Your task to perform on an android device: open app "Reddit" Image 0: 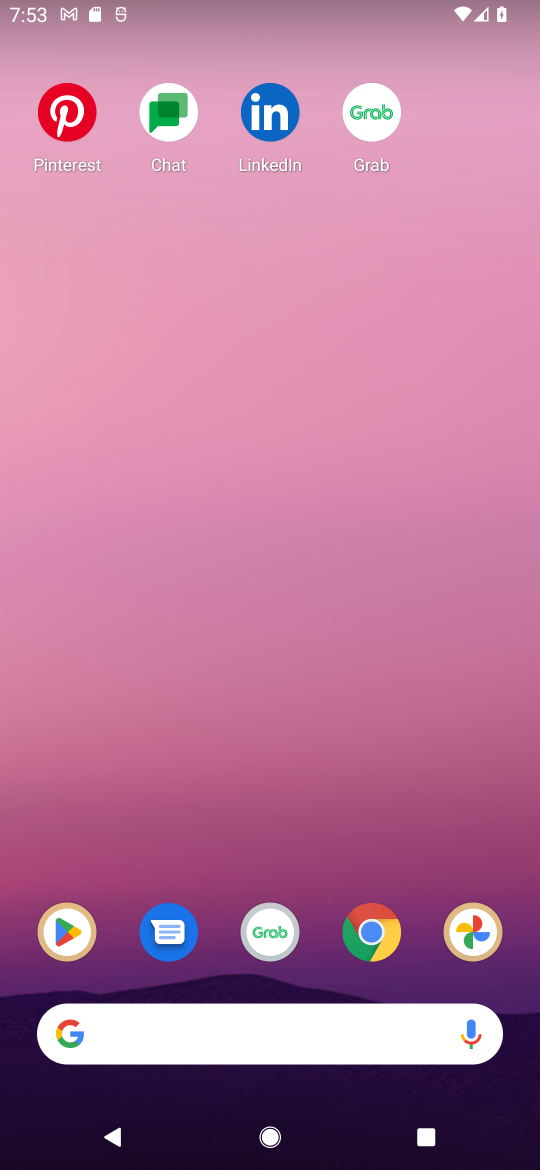
Step 0: click (52, 932)
Your task to perform on an android device: open app "Reddit" Image 1: 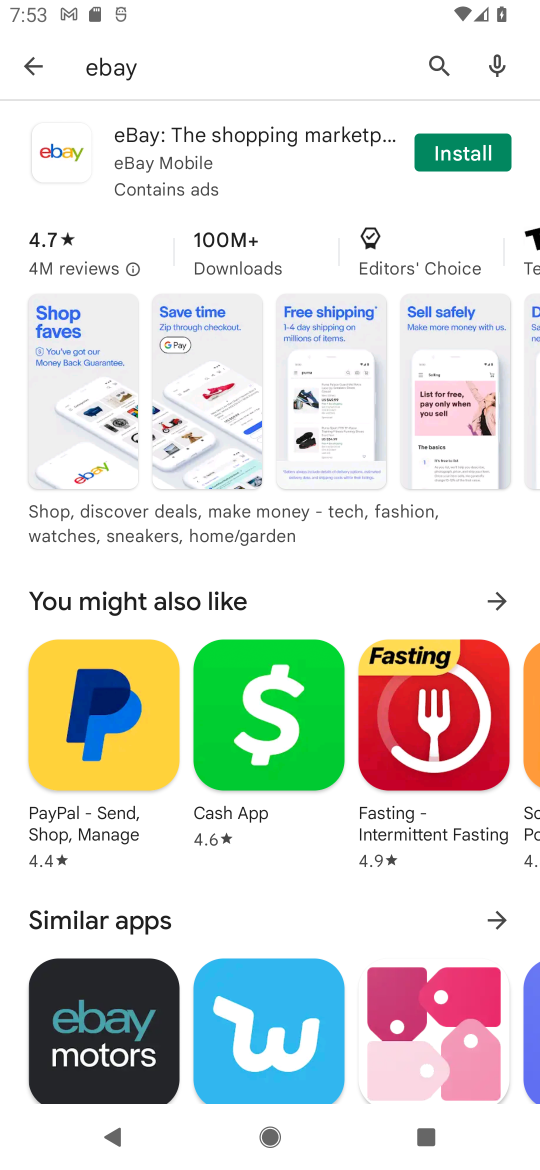
Step 1: click (191, 68)
Your task to perform on an android device: open app "Reddit" Image 2: 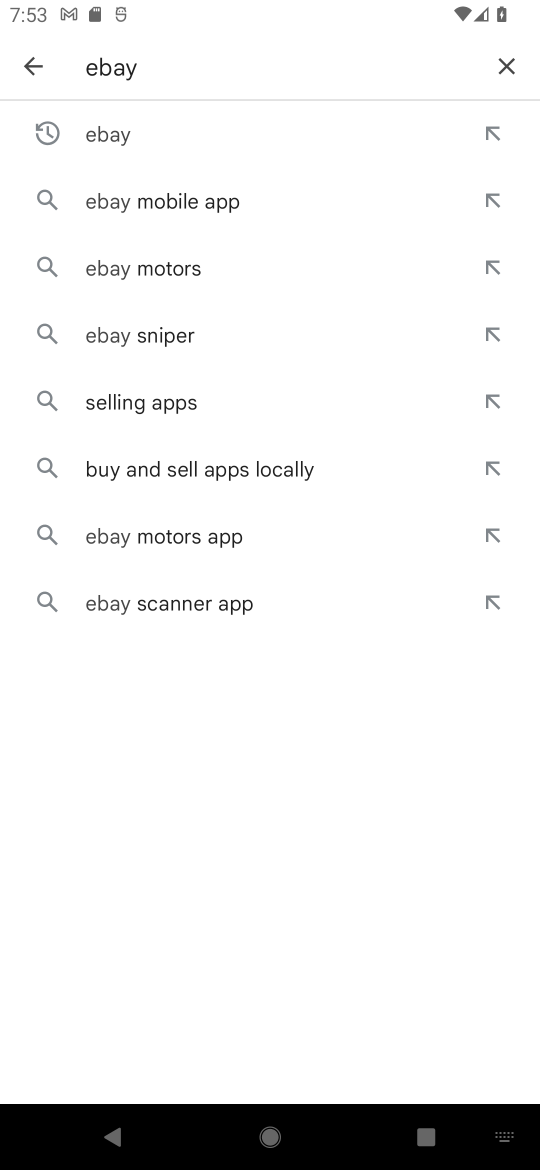
Step 2: click (514, 81)
Your task to perform on an android device: open app "Reddit" Image 3: 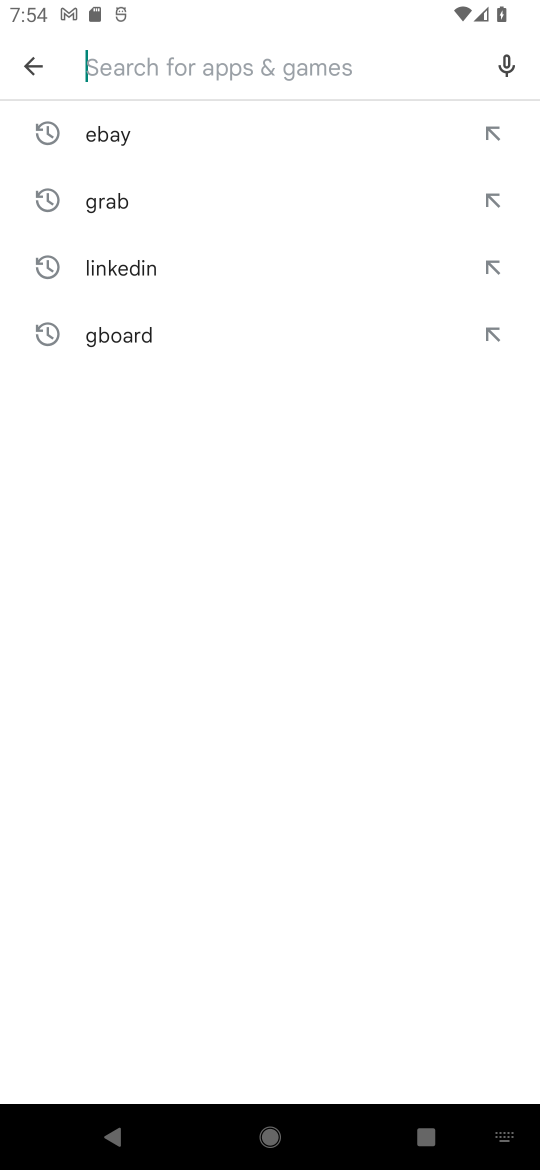
Step 3: type "reddit"
Your task to perform on an android device: open app "Reddit" Image 4: 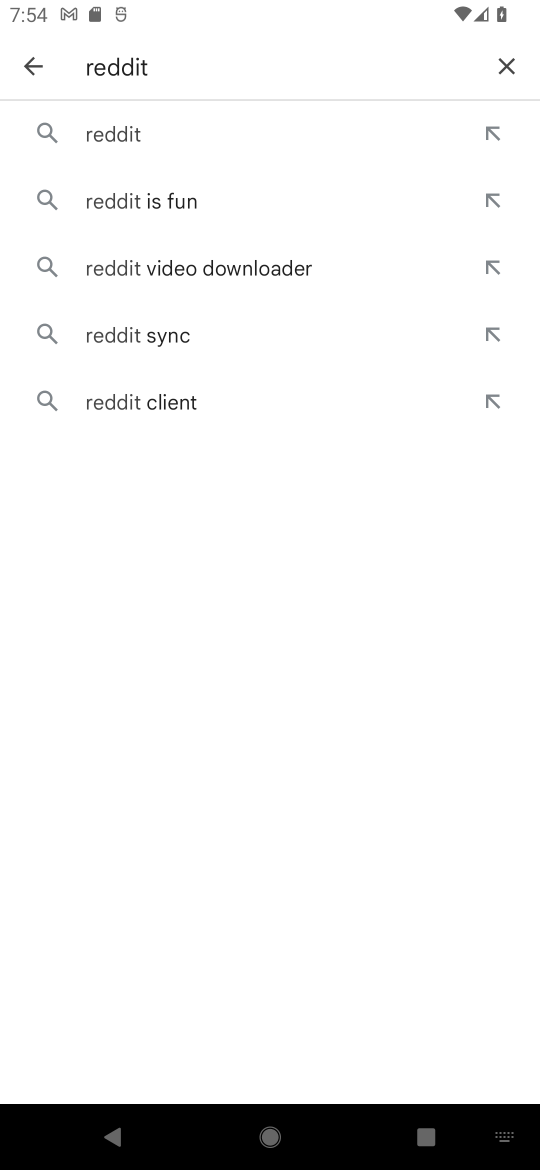
Step 4: click (153, 128)
Your task to perform on an android device: open app "Reddit" Image 5: 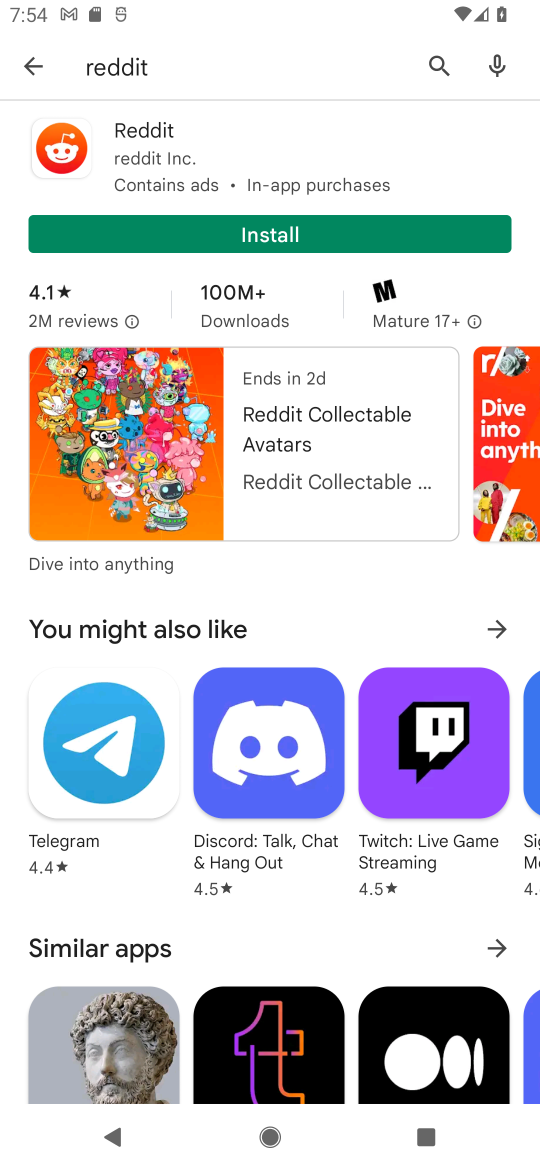
Step 5: click (312, 234)
Your task to perform on an android device: open app "Reddit" Image 6: 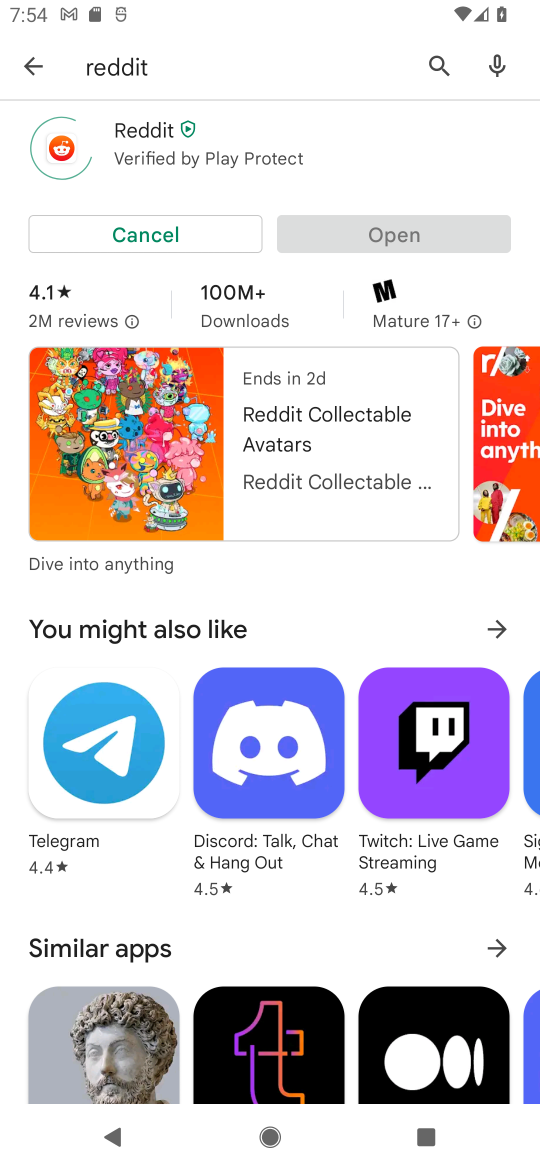
Step 6: click (157, 216)
Your task to perform on an android device: open app "Reddit" Image 7: 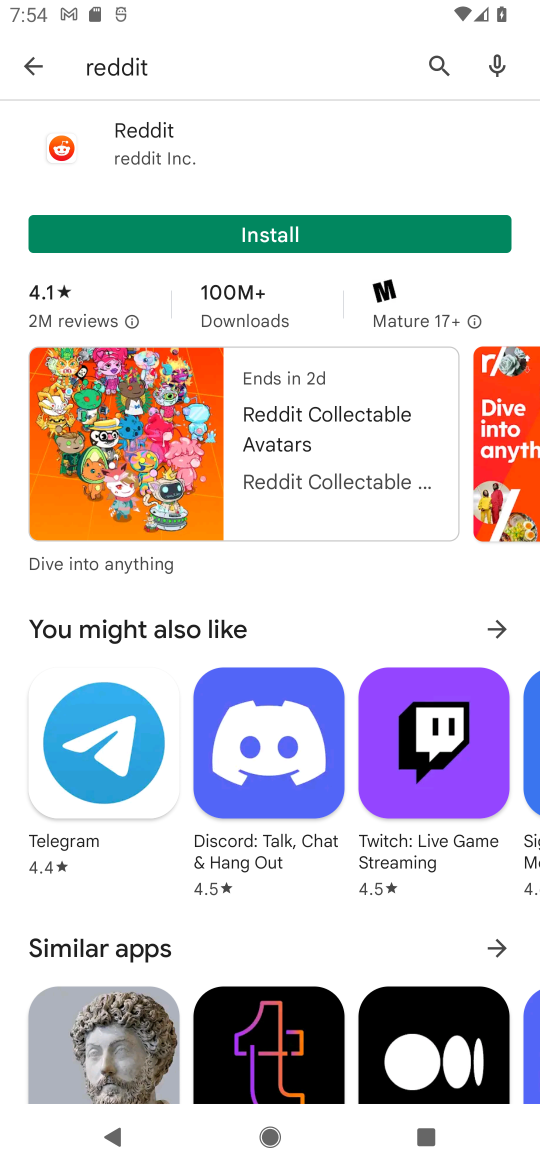
Step 7: task complete